Your task to perform on an android device: Open ESPN.com Image 0: 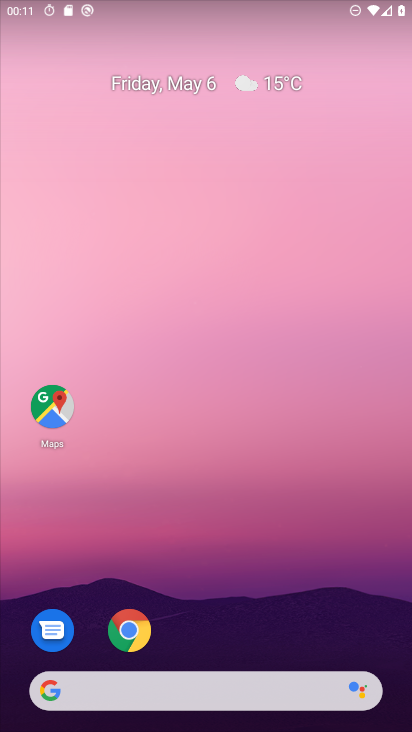
Step 0: press home button
Your task to perform on an android device: Open ESPN.com Image 1: 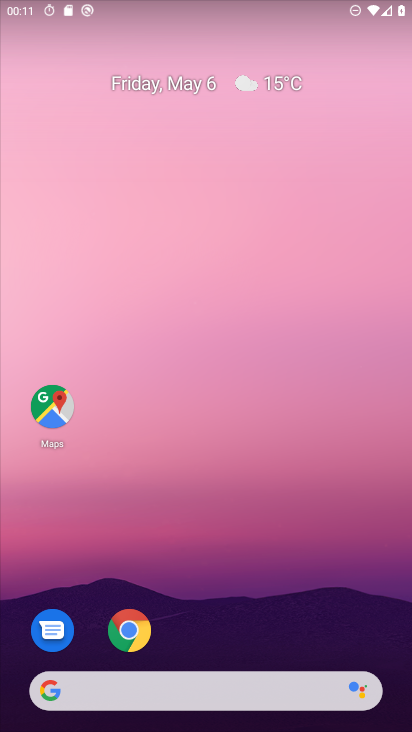
Step 1: click (125, 624)
Your task to perform on an android device: Open ESPN.com Image 2: 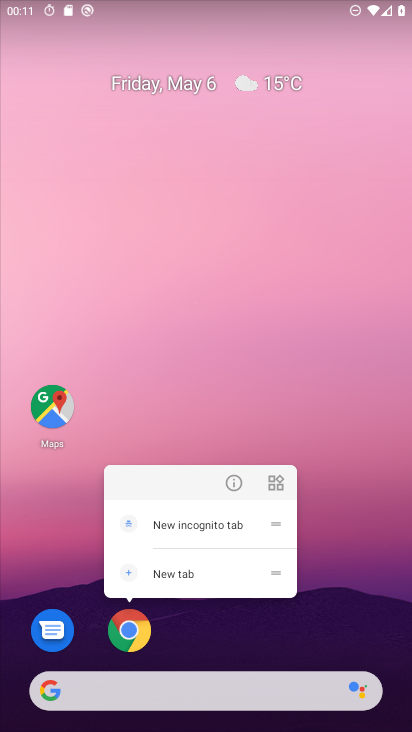
Step 2: click (350, 245)
Your task to perform on an android device: Open ESPN.com Image 3: 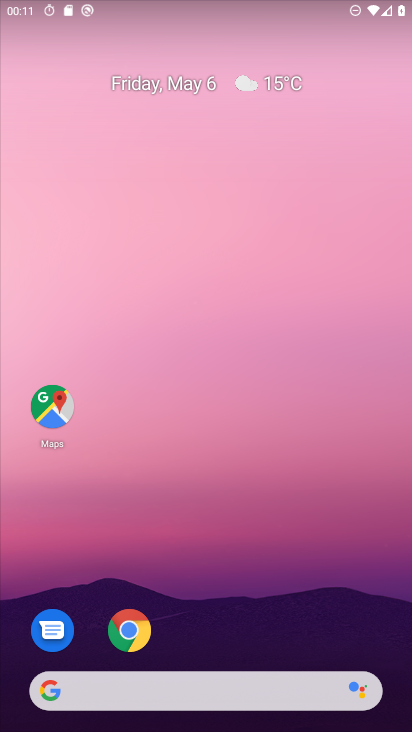
Step 3: click (131, 627)
Your task to perform on an android device: Open ESPN.com Image 4: 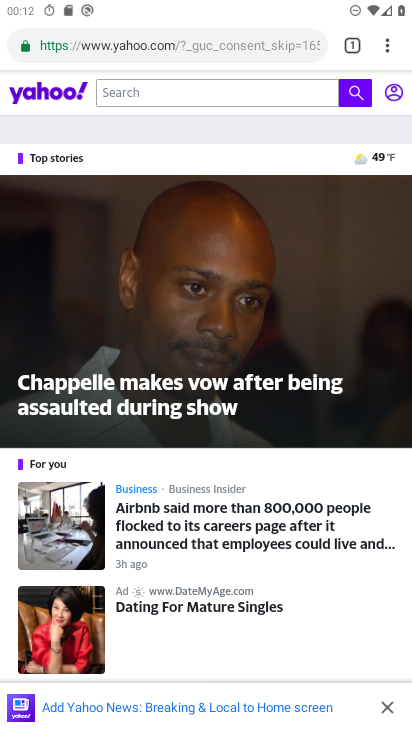
Step 4: click (123, 47)
Your task to perform on an android device: Open ESPN.com Image 5: 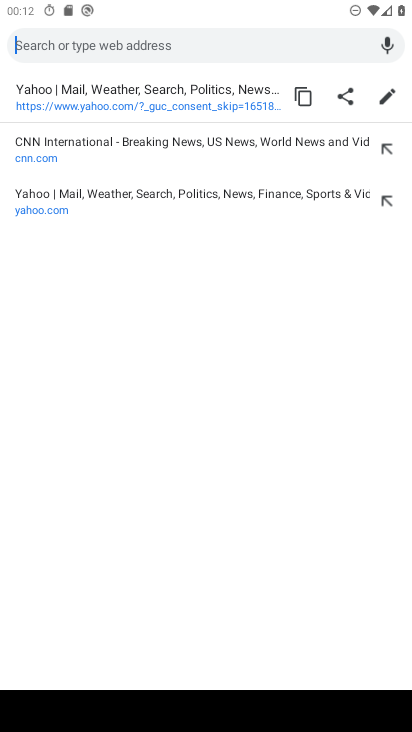
Step 5: type "espn.com"
Your task to perform on an android device: Open ESPN.com Image 6: 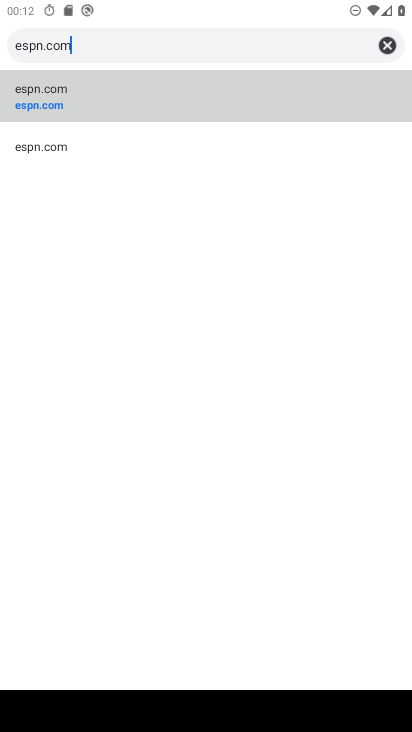
Step 6: click (66, 105)
Your task to perform on an android device: Open ESPN.com Image 7: 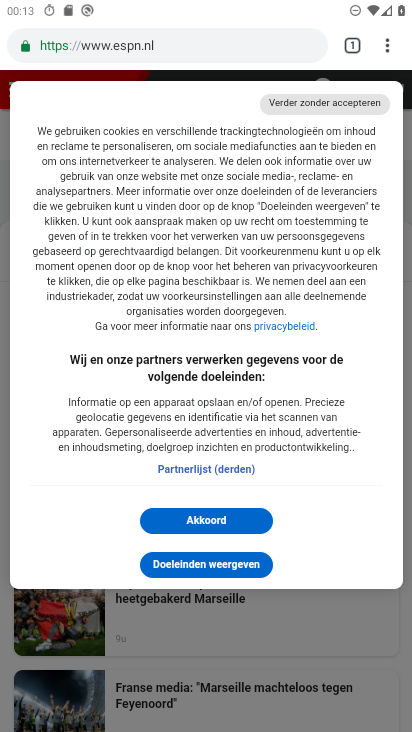
Step 7: task complete